Your task to perform on an android device: toggle javascript in the chrome app Image 0: 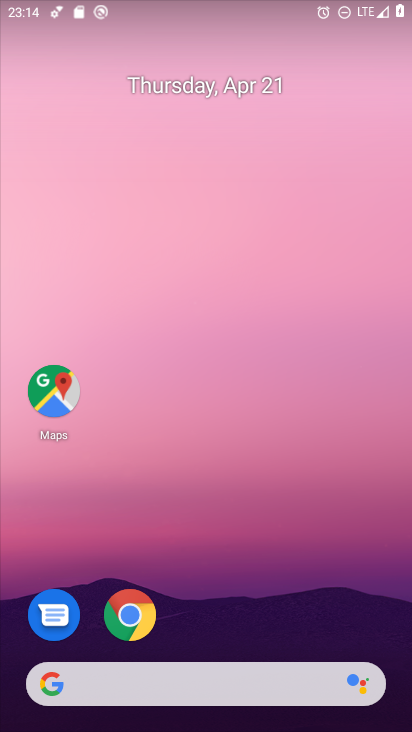
Step 0: drag from (212, 624) to (245, 132)
Your task to perform on an android device: toggle javascript in the chrome app Image 1: 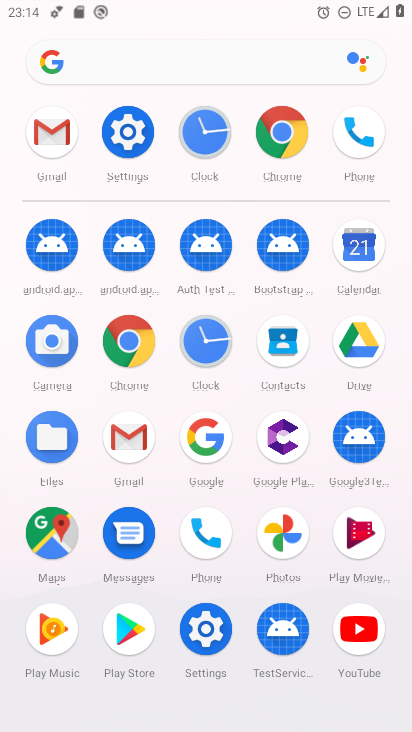
Step 1: click (127, 334)
Your task to perform on an android device: toggle javascript in the chrome app Image 2: 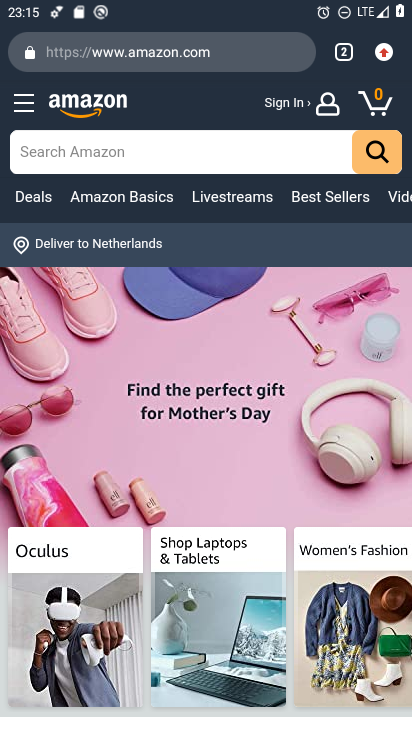
Step 2: click (384, 49)
Your task to perform on an android device: toggle javascript in the chrome app Image 3: 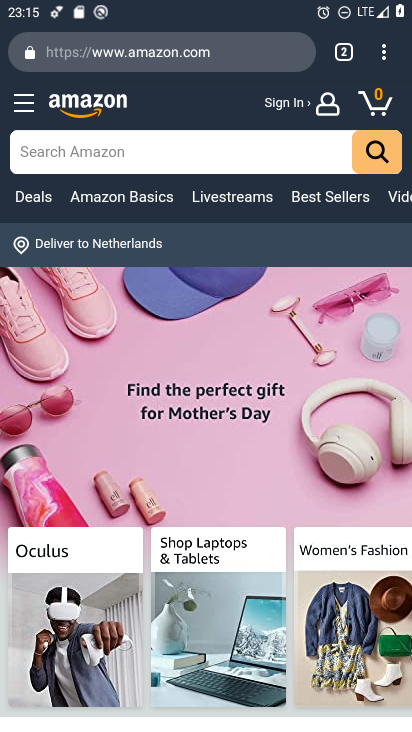
Step 3: click (383, 49)
Your task to perform on an android device: toggle javascript in the chrome app Image 4: 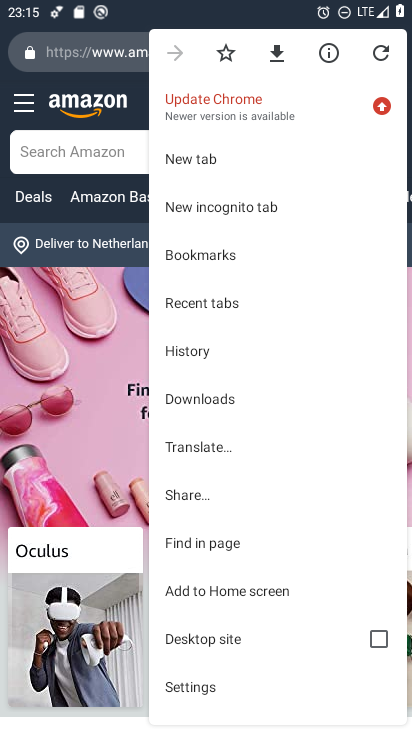
Step 4: click (225, 682)
Your task to perform on an android device: toggle javascript in the chrome app Image 5: 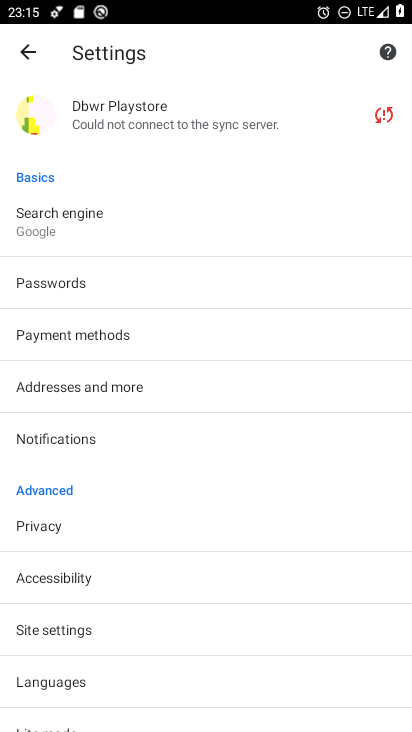
Step 5: click (122, 630)
Your task to perform on an android device: toggle javascript in the chrome app Image 6: 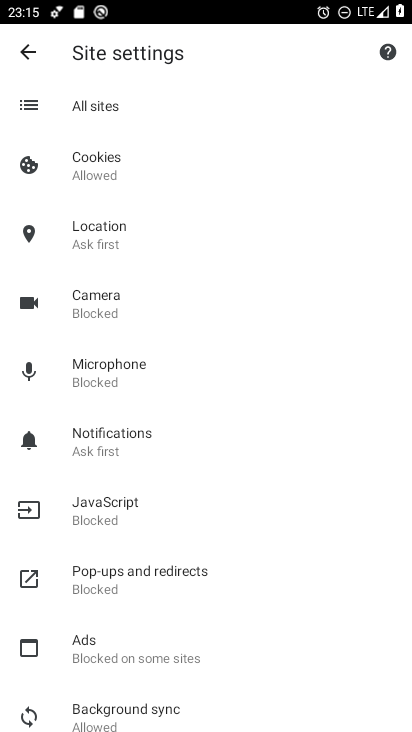
Step 6: click (149, 507)
Your task to perform on an android device: toggle javascript in the chrome app Image 7: 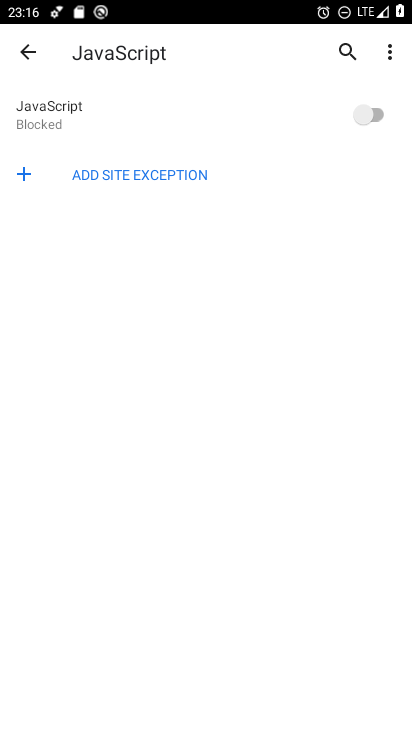
Step 7: click (372, 111)
Your task to perform on an android device: toggle javascript in the chrome app Image 8: 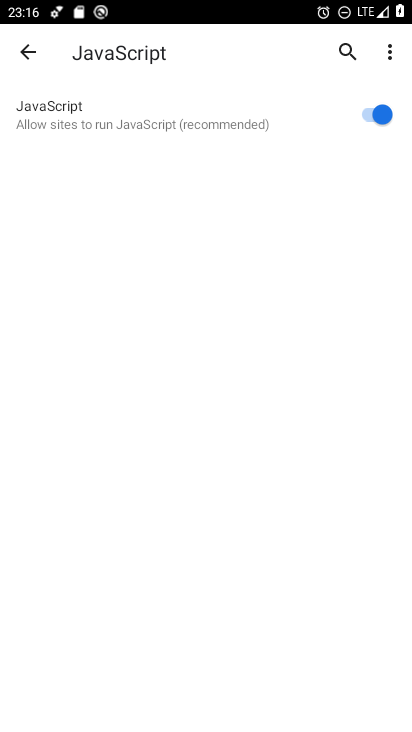
Step 8: task complete